Your task to perform on an android device: open app "Cash App" (install if not already installed) and go to login screen Image 0: 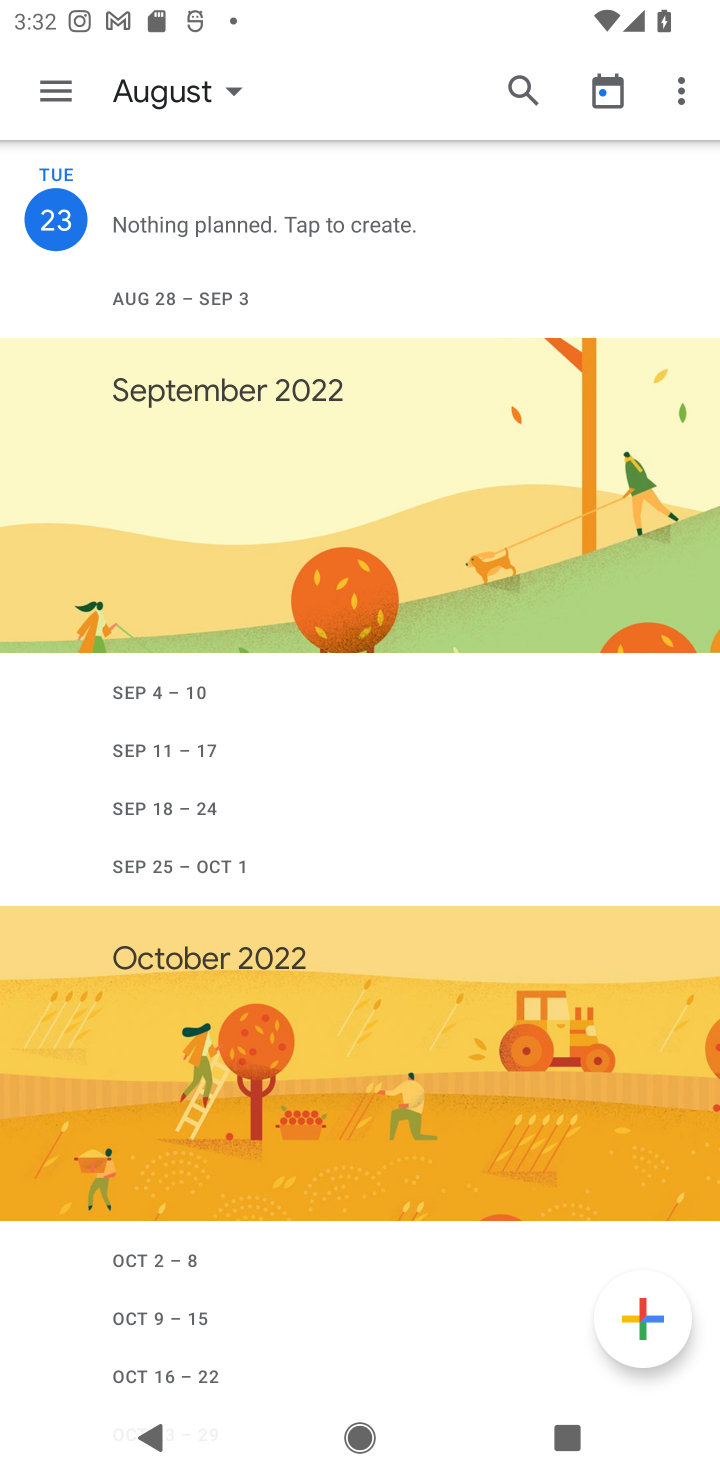
Step 0: press home button
Your task to perform on an android device: open app "Cash App" (install if not already installed) and go to login screen Image 1: 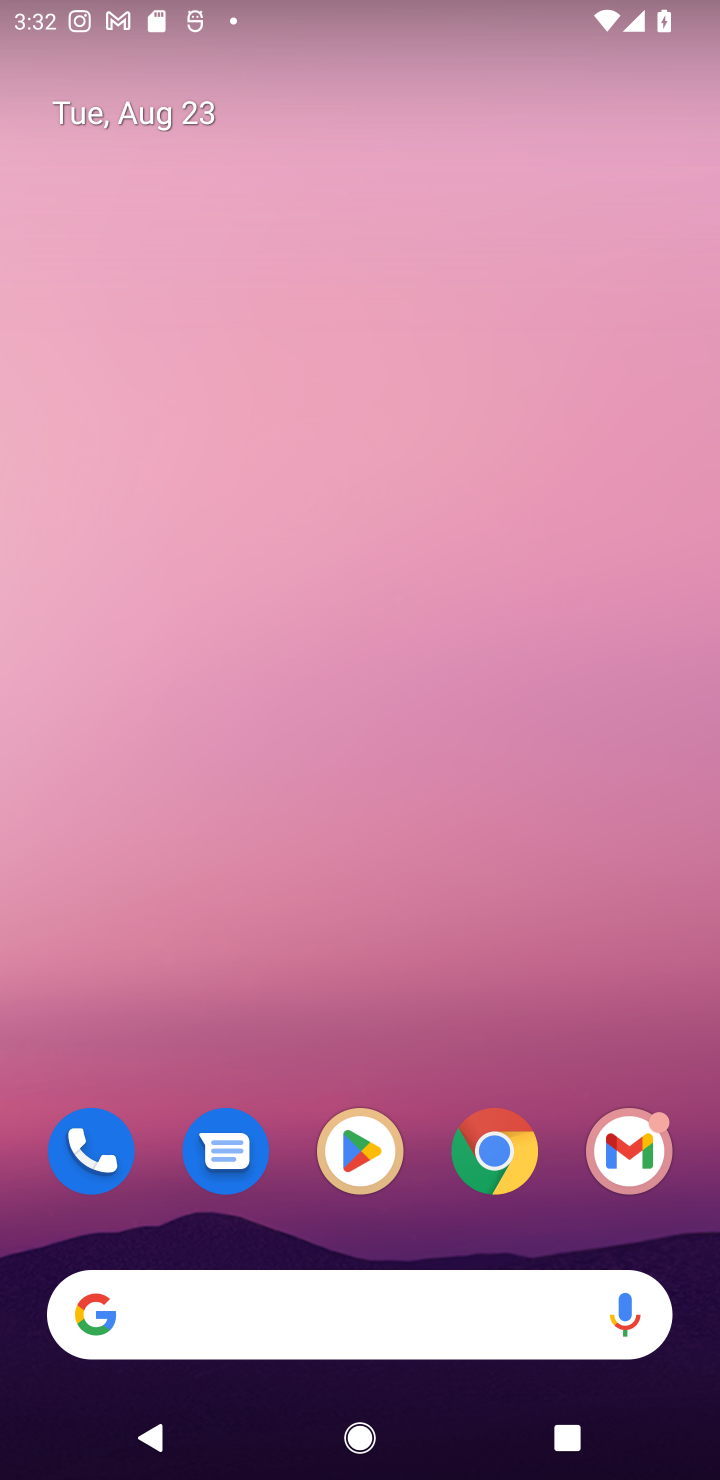
Step 1: click (359, 1151)
Your task to perform on an android device: open app "Cash App" (install if not already installed) and go to login screen Image 2: 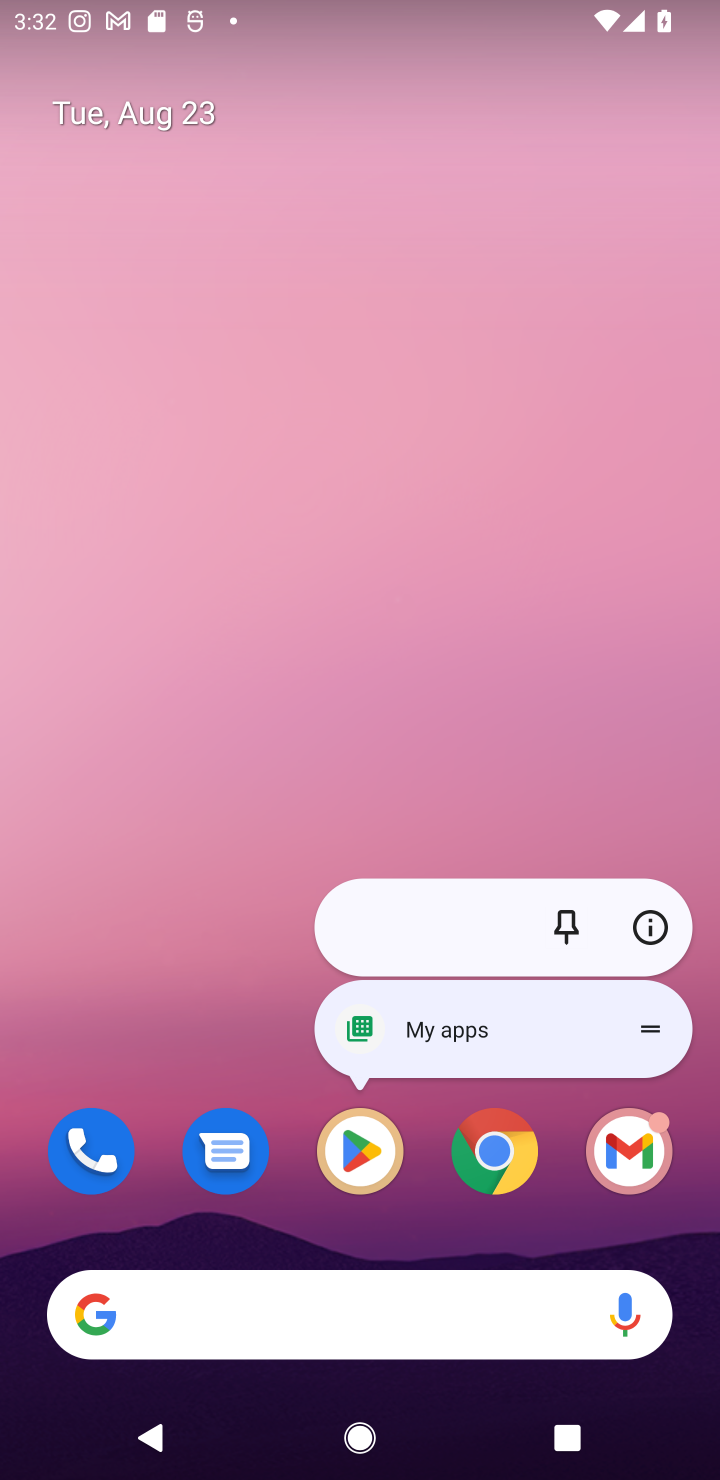
Step 2: click (359, 1160)
Your task to perform on an android device: open app "Cash App" (install if not already installed) and go to login screen Image 3: 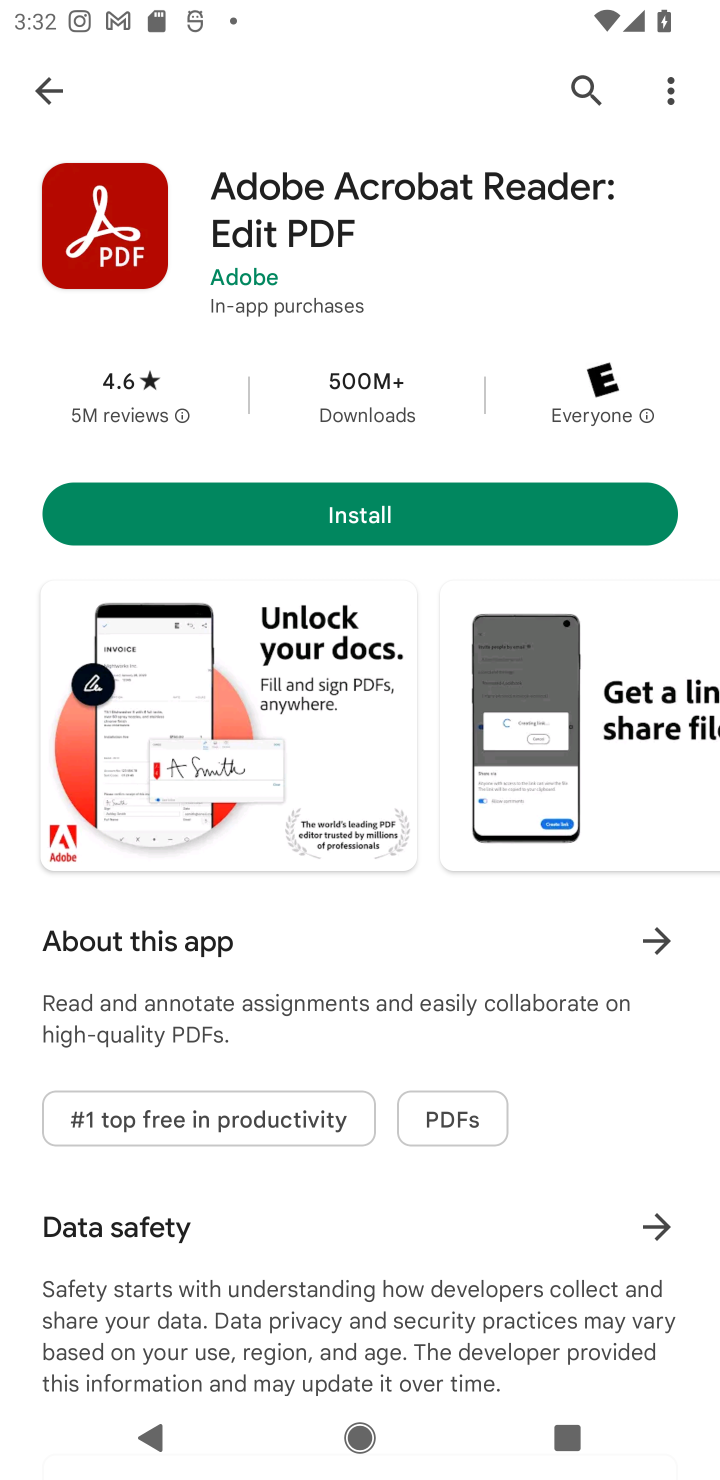
Step 3: click (581, 92)
Your task to perform on an android device: open app "Cash App" (install if not already installed) and go to login screen Image 4: 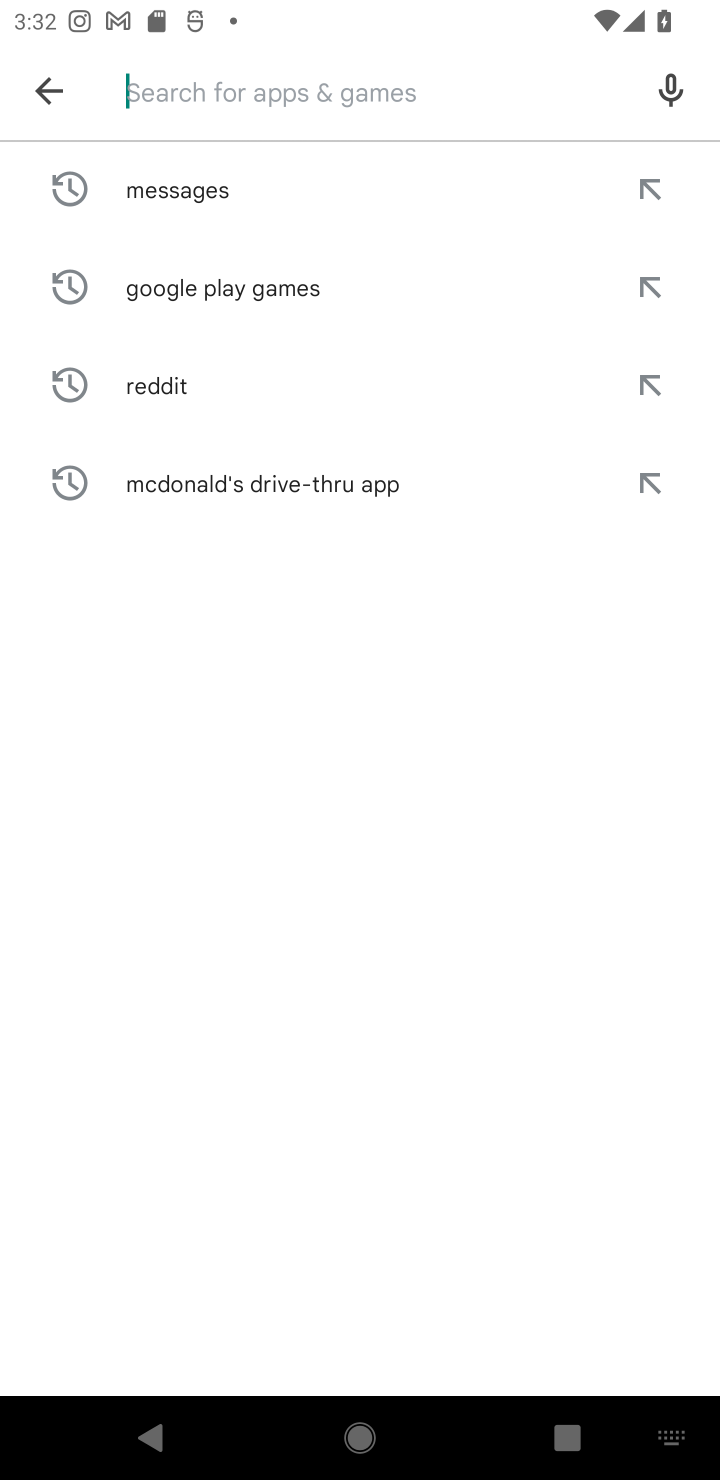
Step 4: type "Cash App"
Your task to perform on an android device: open app "Cash App" (install if not already installed) and go to login screen Image 5: 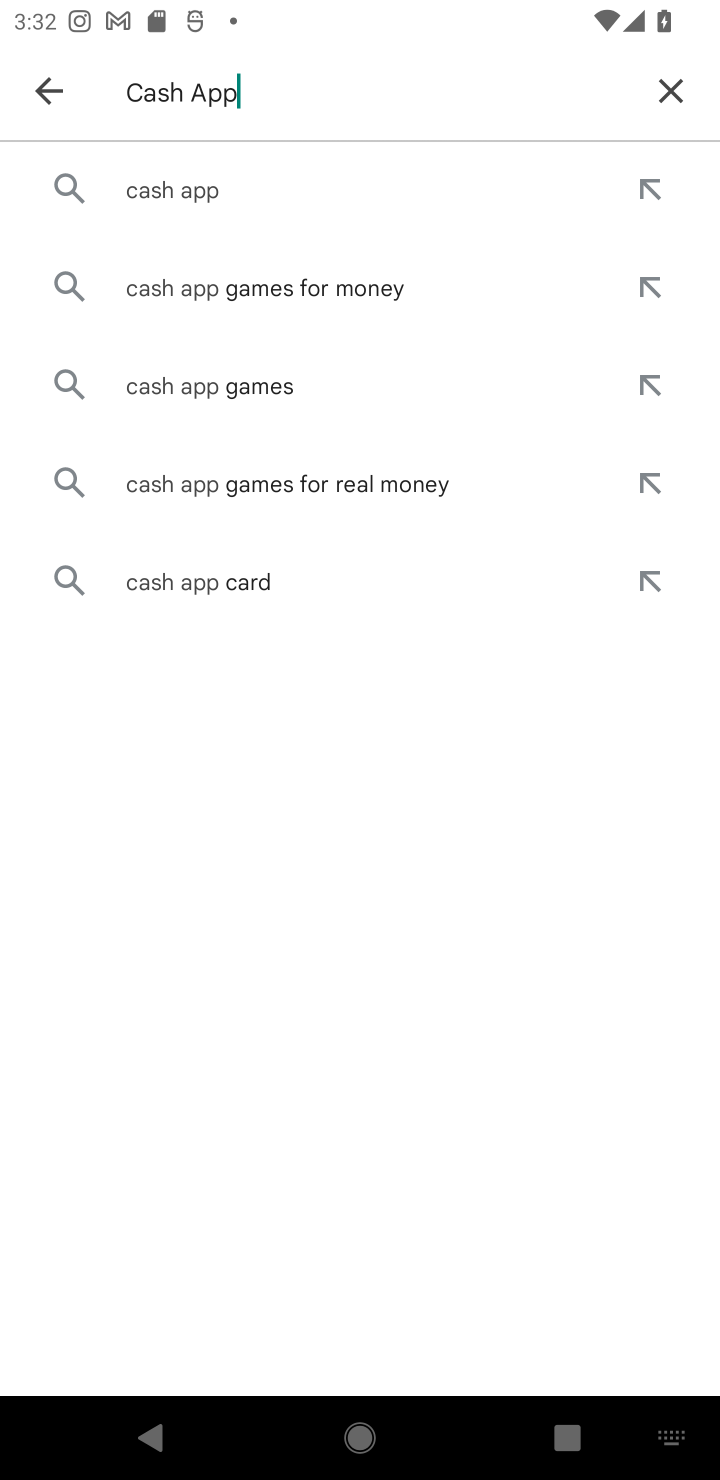
Step 5: click (167, 182)
Your task to perform on an android device: open app "Cash App" (install if not already installed) and go to login screen Image 6: 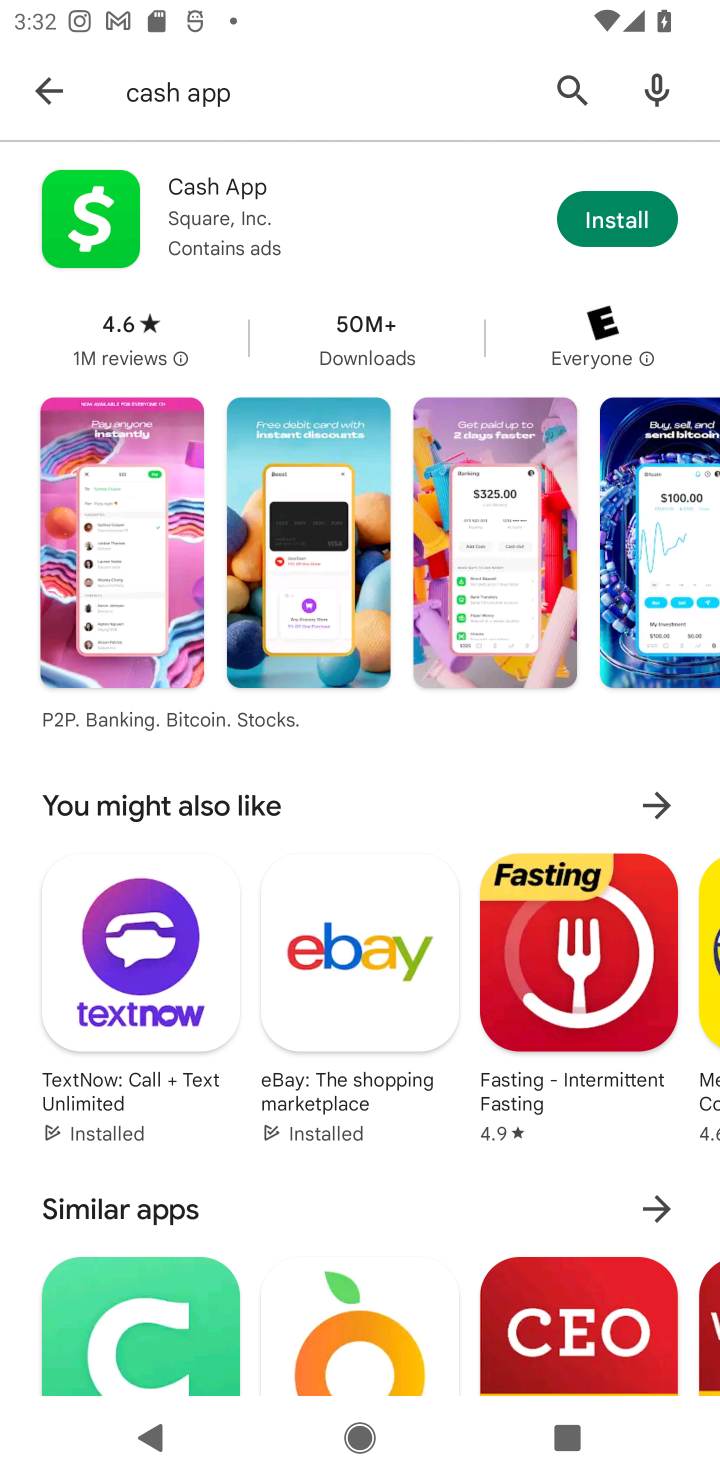
Step 6: click (618, 229)
Your task to perform on an android device: open app "Cash App" (install if not already installed) and go to login screen Image 7: 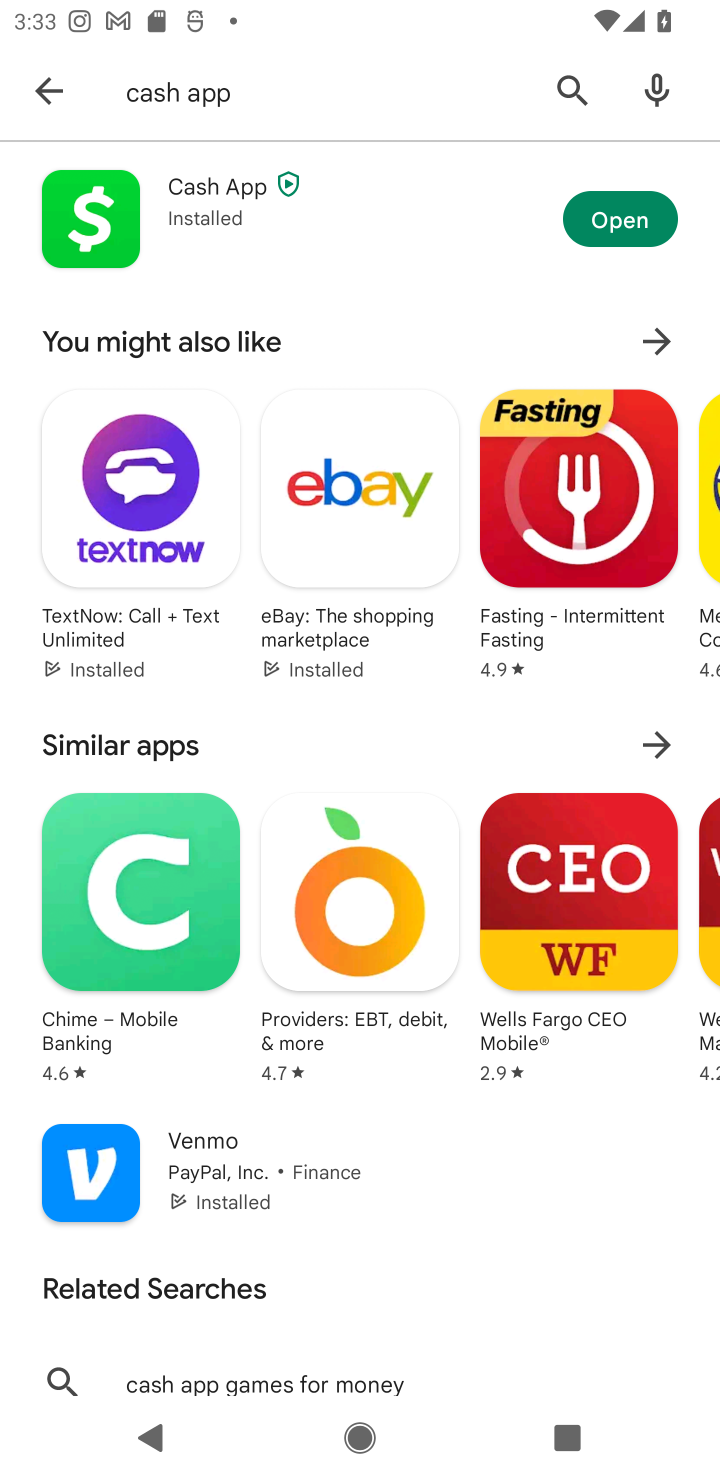
Step 7: click (631, 228)
Your task to perform on an android device: open app "Cash App" (install if not already installed) and go to login screen Image 8: 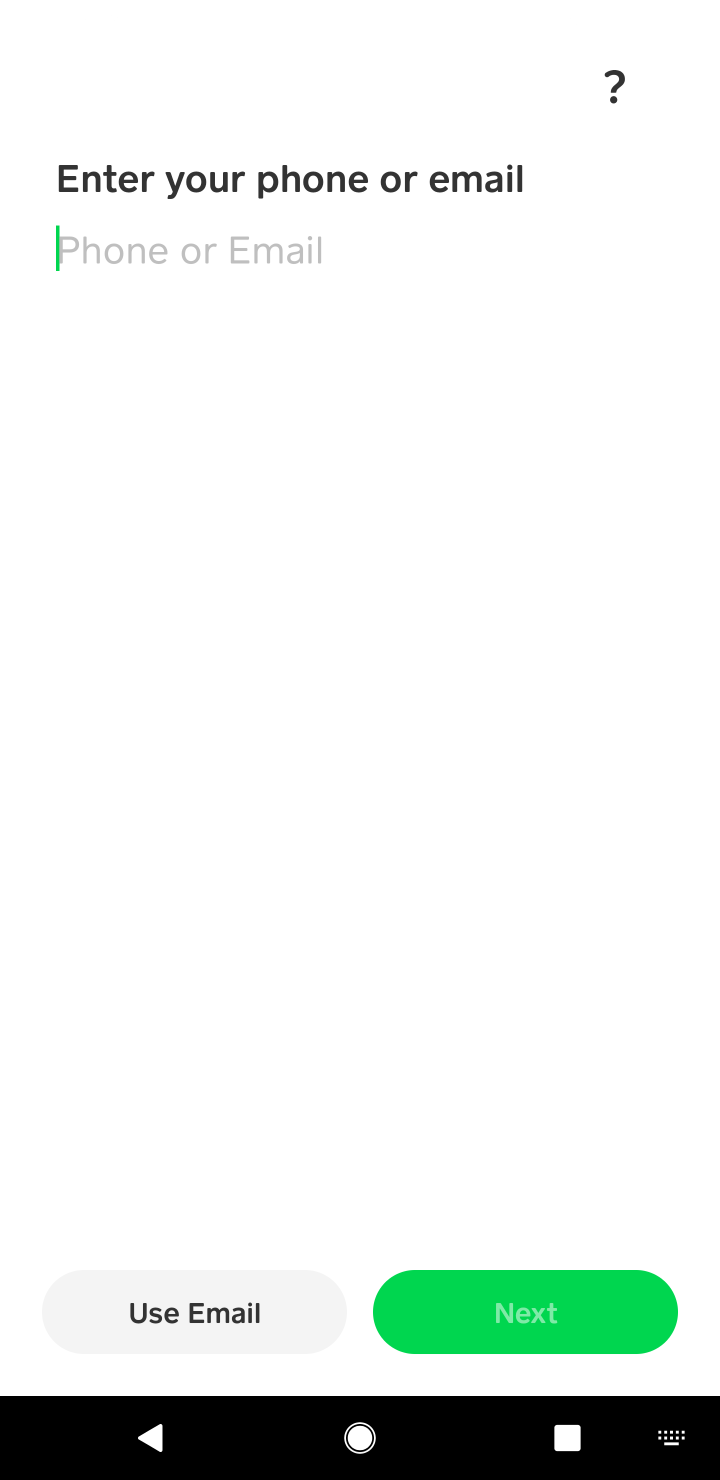
Step 8: task complete